Your task to perform on an android device: remove spam from my inbox in the gmail app Image 0: 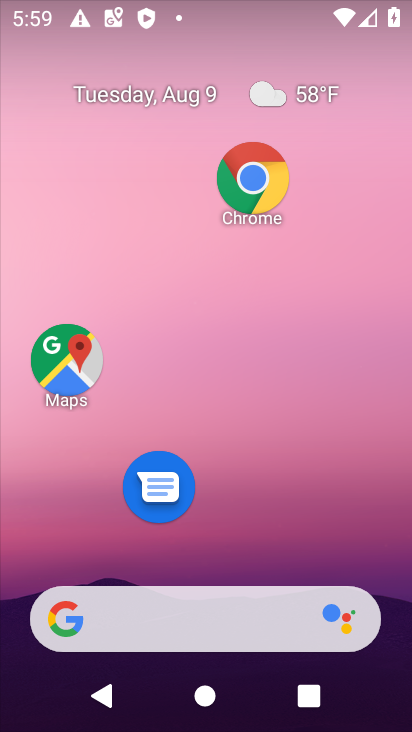
Step 0: drag from (215, 10) to (193, 451)
Your task to perform on an android device: remove spam from my inbox in the gmail app Image 1: 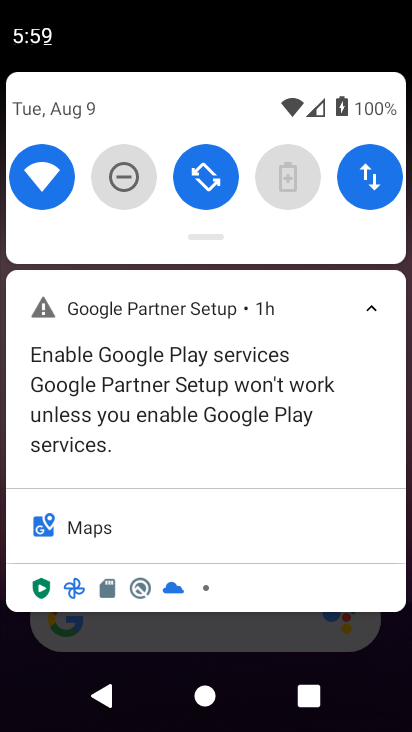
Step 1: drag from (220, 231) to (188, 552)
Your task to perform on an android device: remove spam from my inbox in the gmail app Image 2: 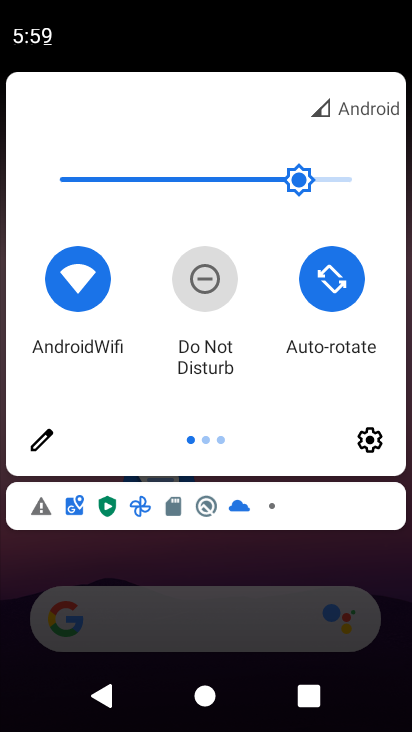
Step 2: drag from (292, 395) to (74, 415)
Your task to perform on an android device: remove spam from my inbox in the gmail app Image 3: 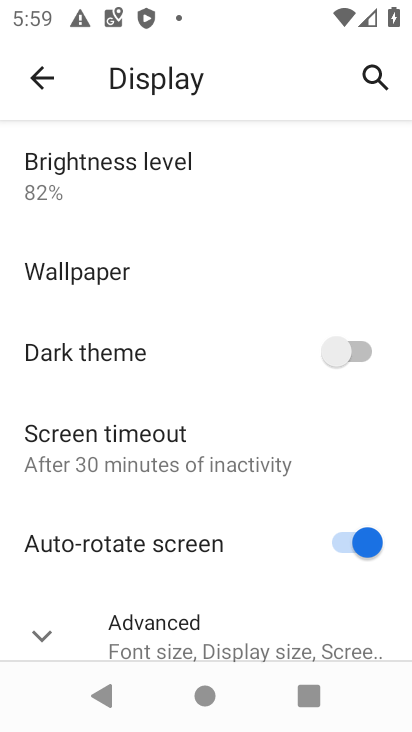
Step 3: click (48, 74)
Your task to perform on an android device: remove spam from my inbox in the gmail app Image 4: 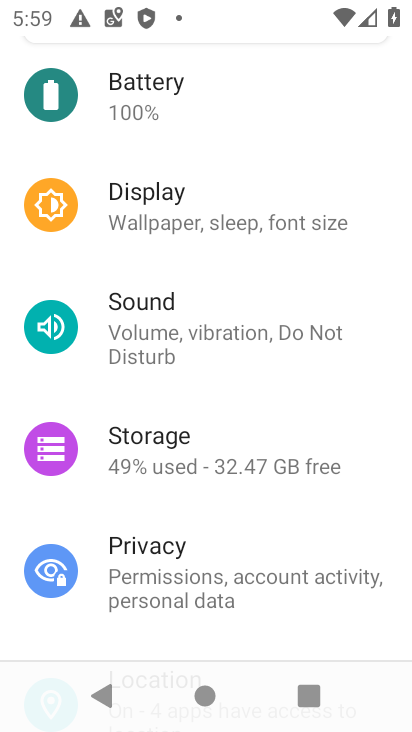
Step 4: drag from (181, 3) to (150, 504)
Your task to perform on an android device: remove spam from my inbox in the gmail app Image 5: 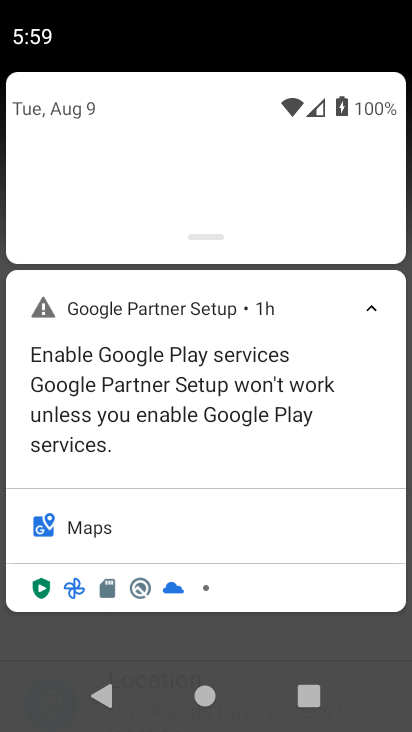
Step 5: drag from (204, 235) to (182, 549)
Your task to perform on an android device: remove spam from my inbox in the gmail app Image 6: 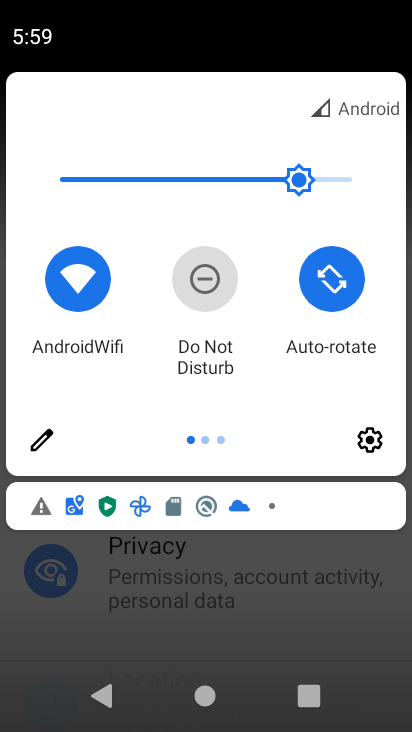
Step 6: drag from (301, 402) to (108, 461)
Your task to perform on an android device: remove spam from my inbox in the gmail app Image 7: 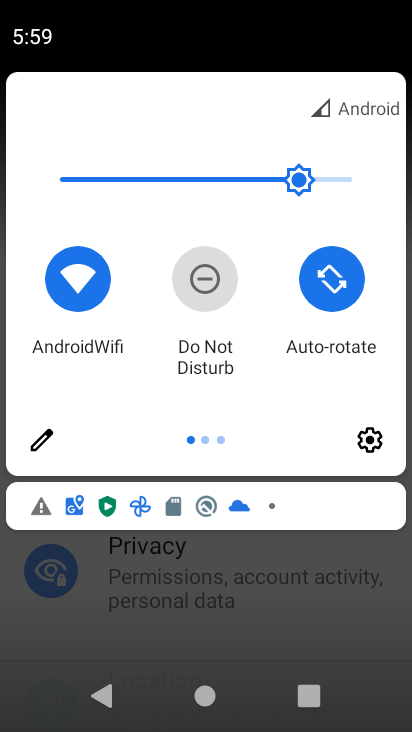
Step 7: drag from (322, 380) to (23, 361)
Your task to perform on an android device: remove spam from my inbox in the gmail app Image 8: 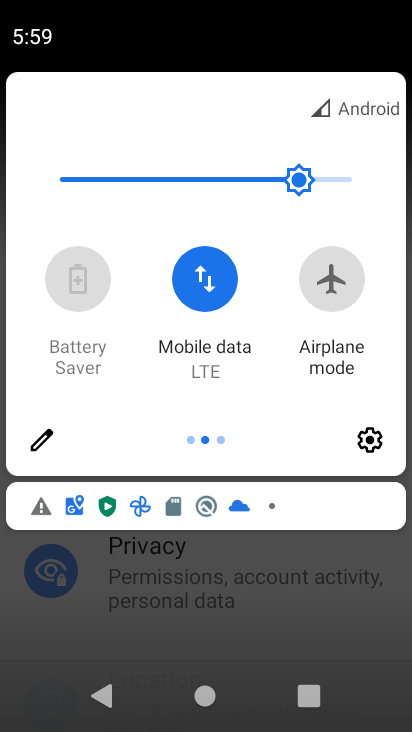
Step 8: drag from (270, 380) to (43, 393)
Your task to perform on an android device: remove spam from my inbox in the gmail app Image 9: 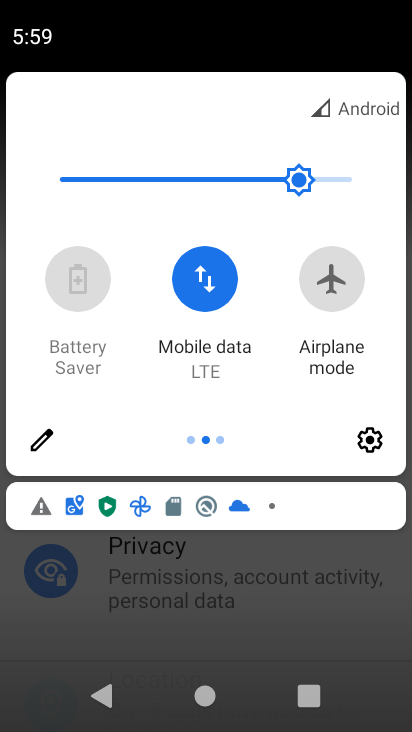
Step 9: click (315, 602)
Your task to perform on an android device: remove spam from my inbox in the gmail app Image 10: 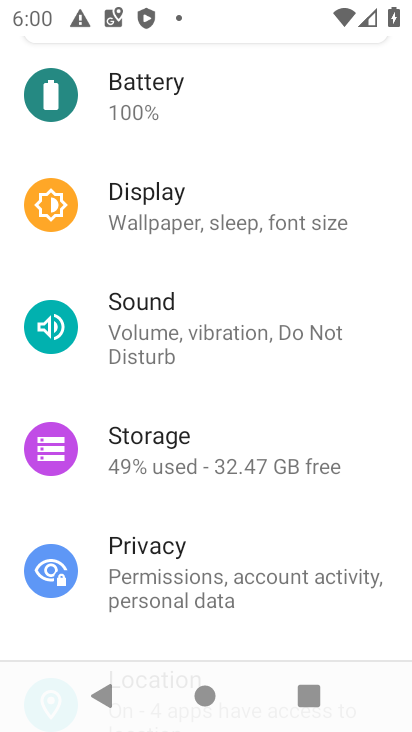
Step 10: click (216, 693)
Your task to perform on an android device: remove spam from my inbox in the gmail app Image 11: 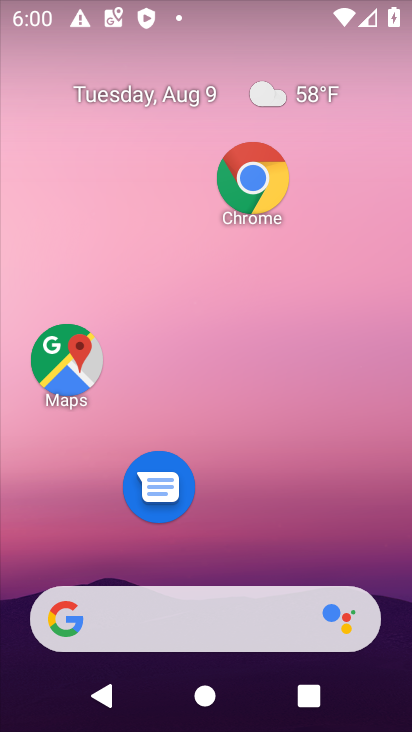
Step 11: drag from (250, 539) to (253, 9)
Your task to perform on an android device: remove spam from my inbox in the gmail app Image 12: 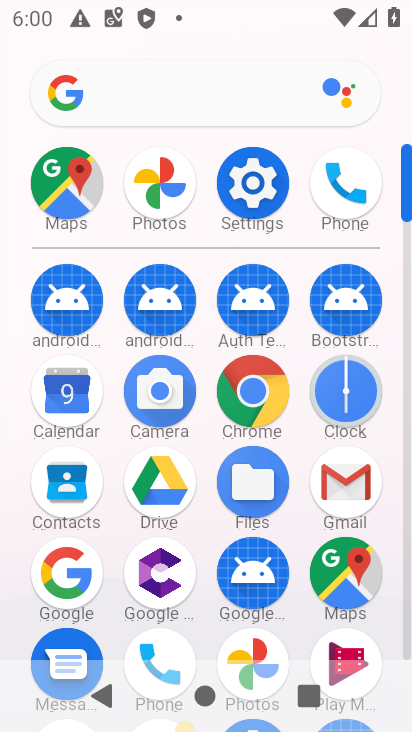
Step 12: click (338, 480)
Your task to perform on an android device: remove spam from my inbox in the gmail app Image 13: 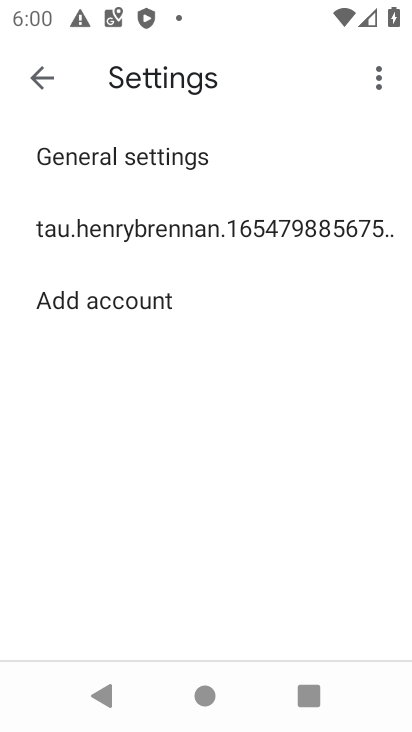
Step 13: click (43, 72)
Your task to perform on an android device: remove spam from my inbox in the gmail app Image 14: 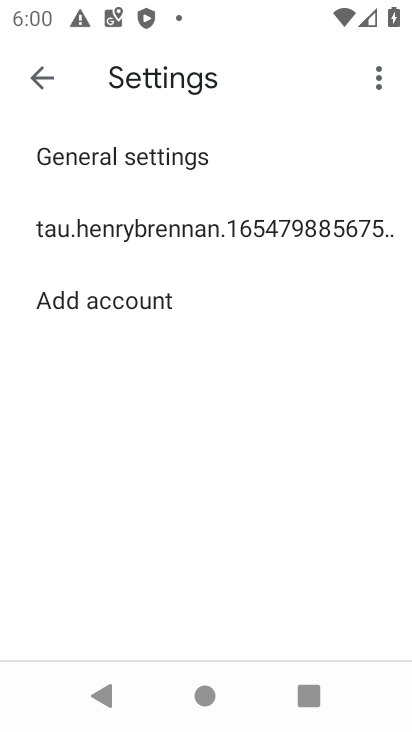
Step 14: click (42, 71)
Your task to perform on an android device: remove spam from my inbox in the gmail app Image 15: 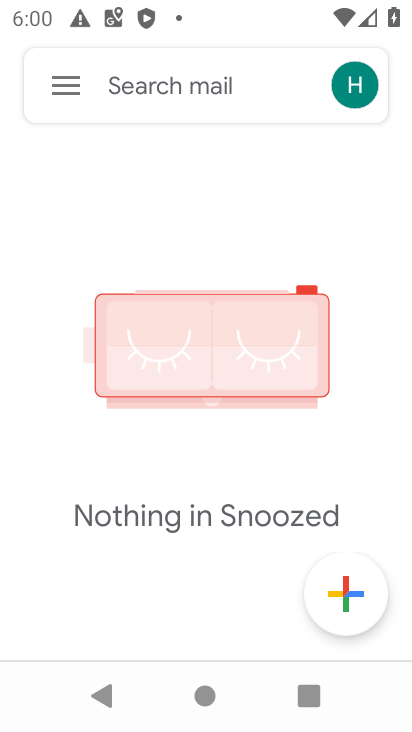
Step 15: click (55, 82)
Your task to perform on an android device: remove spam from my inbox in the gmail app Image 16: 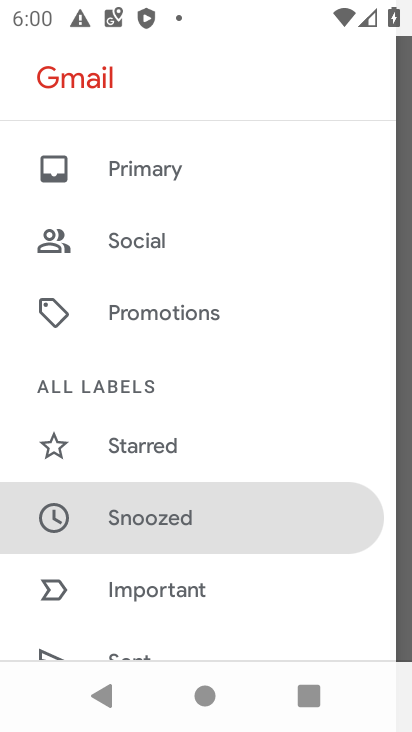
Step 16: drag from (265, 398) to (297, 64)
Your task to perform on an android device: remove spam from my inbox in the gmail app Image 17: 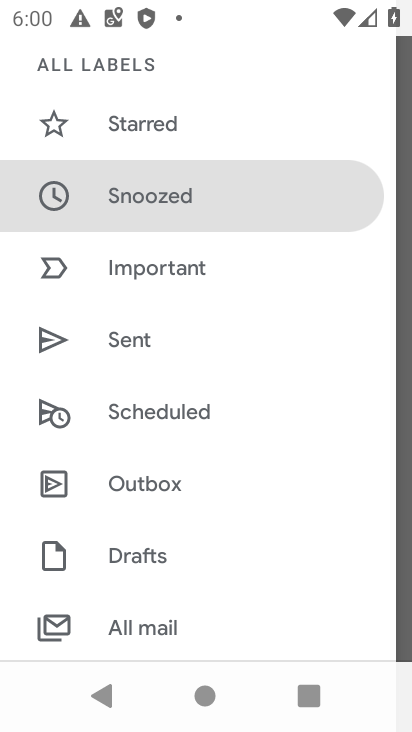
Step 17: drag from (398, 439) to (389, 363)
Your task to perform on an android device: remove spam from my inbox in the gmail app Image 18: 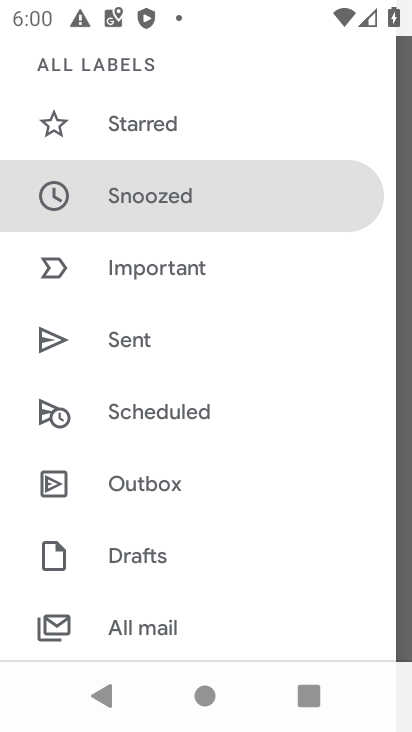
Step 18: drag from (354, 433) to (341, 96)
Your task to perform on an android device: remove spam from my inbox in the gmail app Image 19: 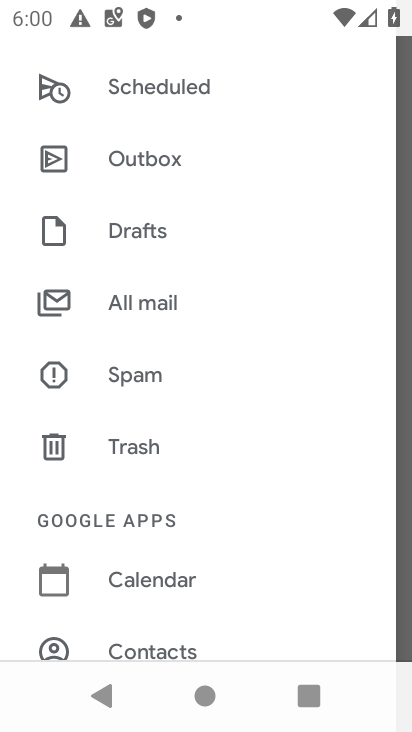
Step 19: click (148, 379)
Your task to perform on an android device: remove spam from my inbox in the gmail app Image 20: 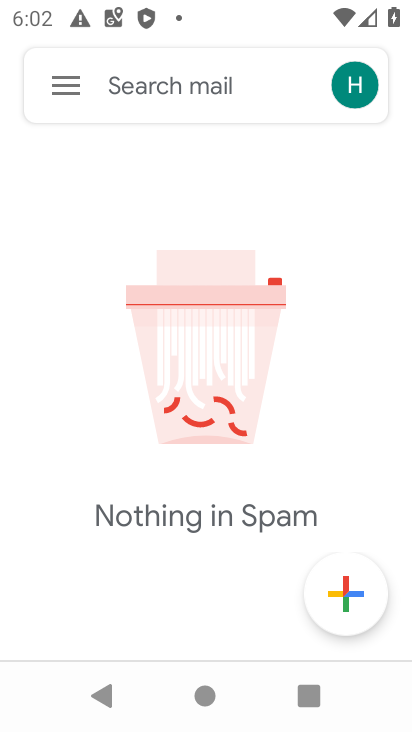
Step 20: task complete